Your task to perform on an android device: turn on location history Image 0: 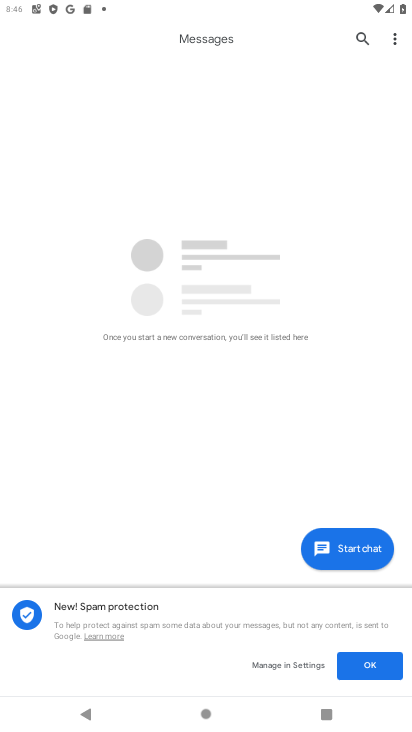
Step 0: press home button
Your task to perform on an android device: turn on location history Image 1: 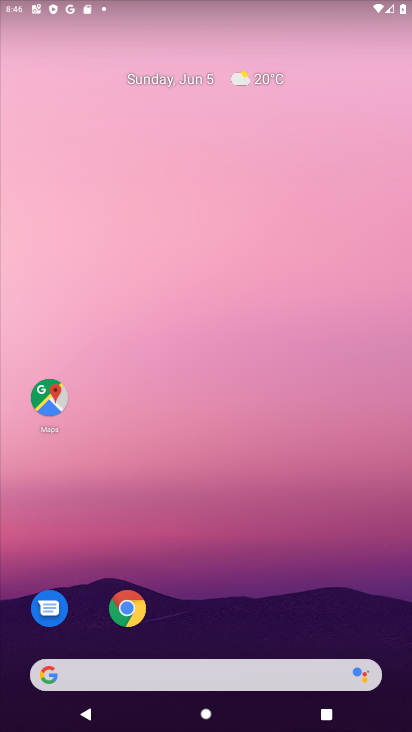
Step 1: drag from (61, 567) to (253, 97)
Your task to perform on an android device: turn on location history Image 2: 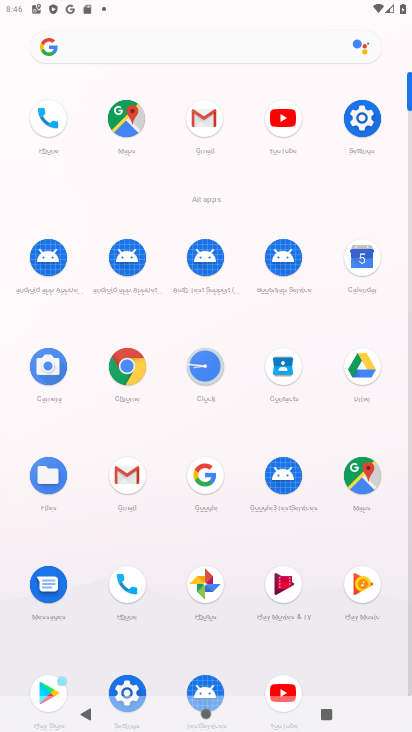
Step 2: click (348, 116)
Your task to perform on an android device: turn on location history Image 3: 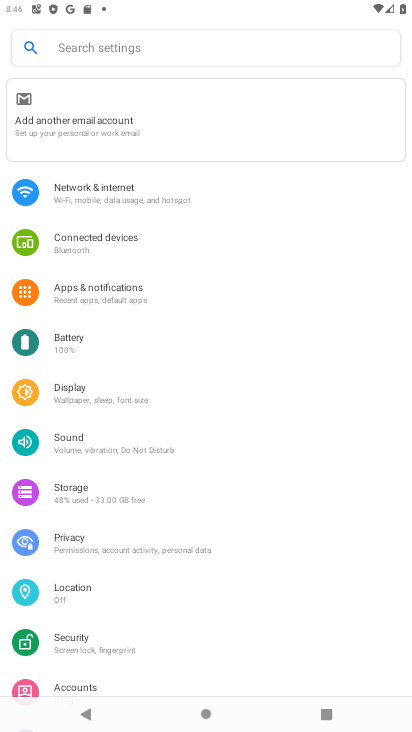
Step 3: click (66, 604)
Your task to perform on an android device: turn on location history Image 4: 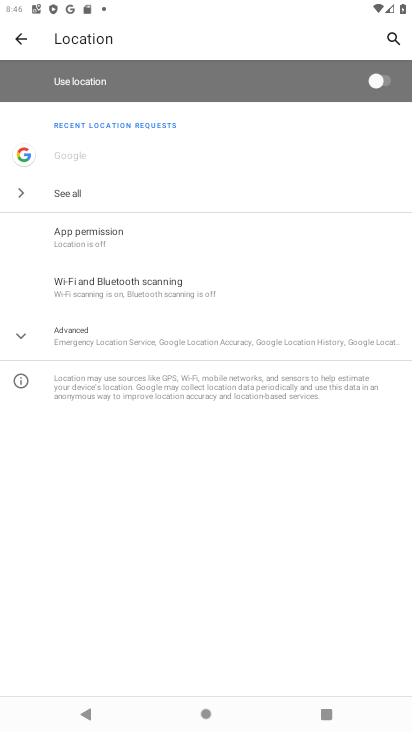
Step 4: click (376, 86)
Your task to perform on an android device: turn on location history Image 5: 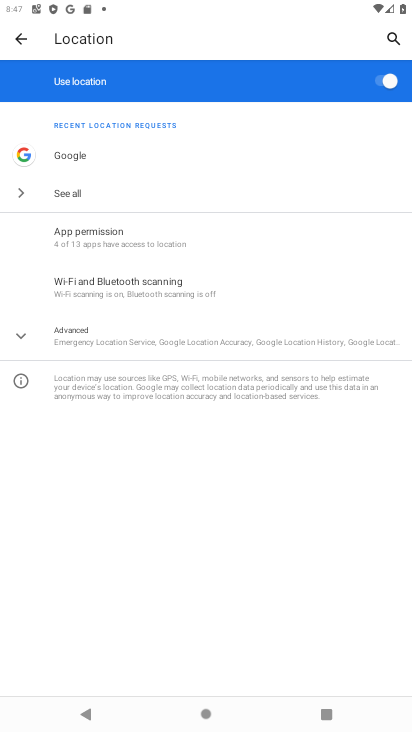
Step 5: click (71, 356)
Your task to perform on an android device: turn on location history Image 6: 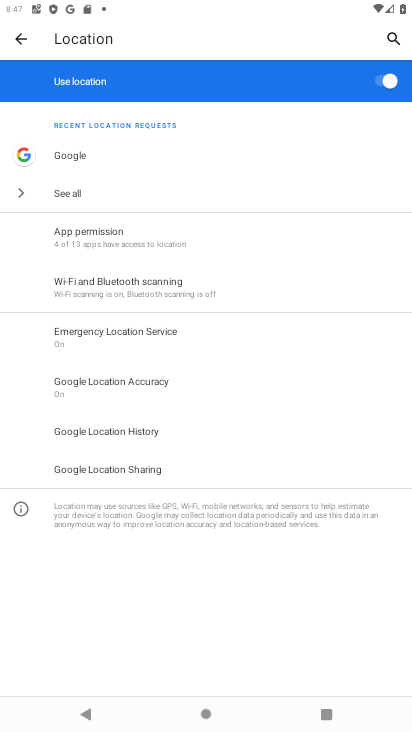
Step 6: click (123, 427)
Your task to perform on an android device: turn on location history Image 7: 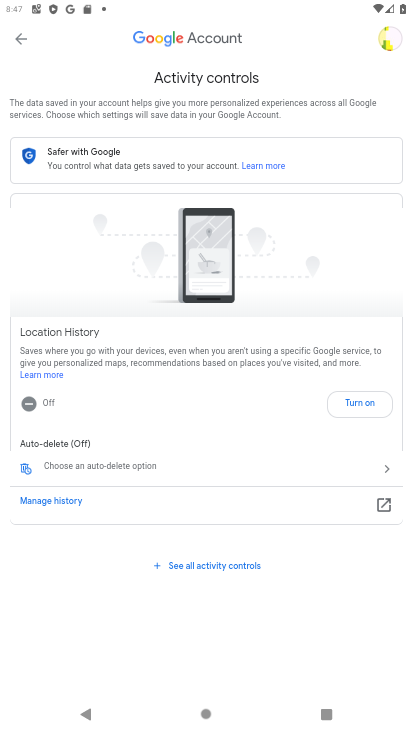
Step 7: task complete